Your task to perform on an android device: Open Youtube and go to the subscriptions tab Image 0: 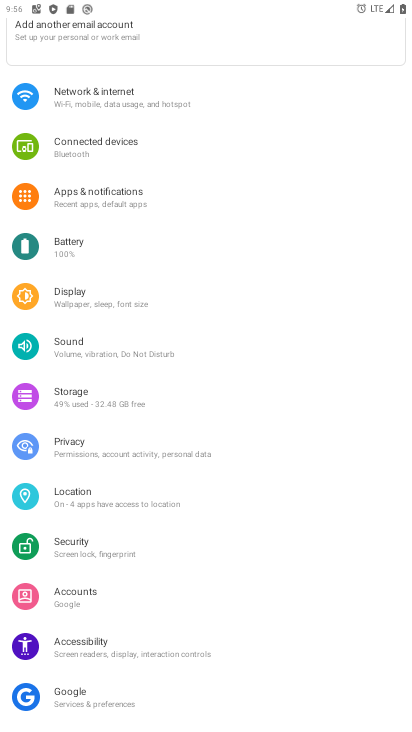
Step 0: press home button
Your task to perform on an android device: Open Youtube and go to the subscriptions tab Image 1: 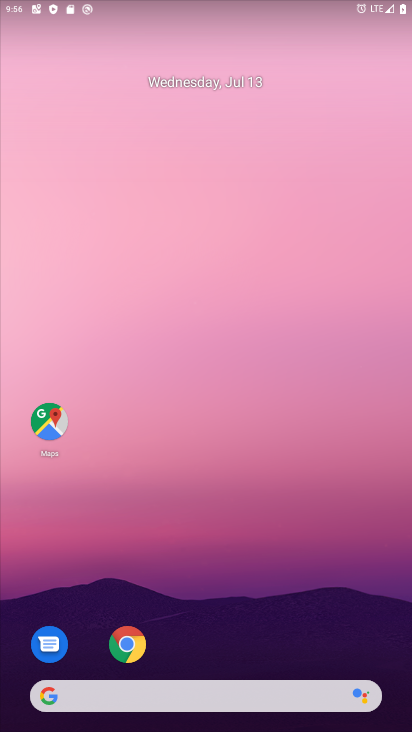
Step 1: drag from (183, 675) to (175, 74)
Your task to perform on an android device: Open Youtube and go to the subscriptions tab Image 2: 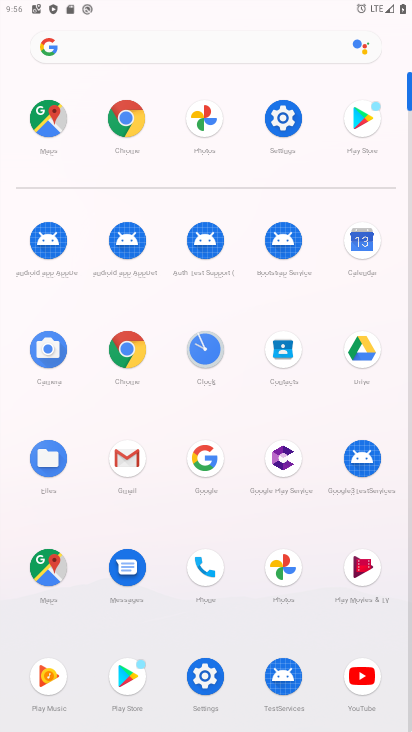
Step 2: click (365, 670)
Your task to perform on an android device: Open Youtube and go to the subscriptions tab Image 3: 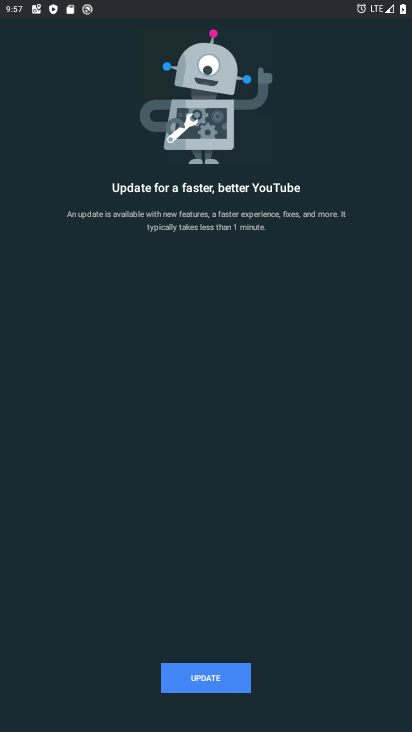
Step 3: task complete